Your task to perform on an android device: Search for Italian restaurants on Maps Image 0: 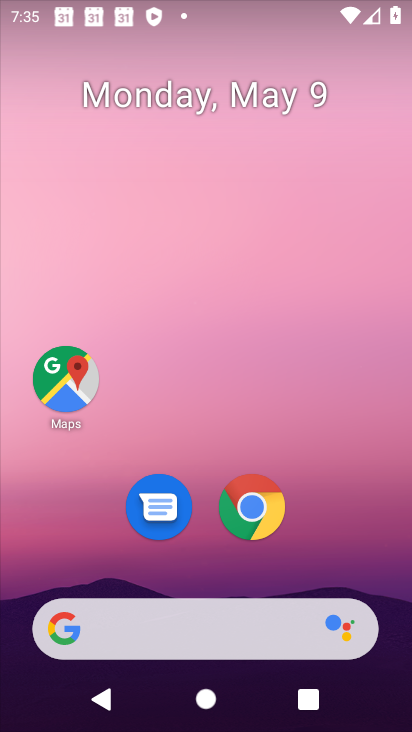
Step 0: drag from (278, 667) to (249, 165)
Your task to perform on an android device: Search for Italian restaurants on Maps Image 1: 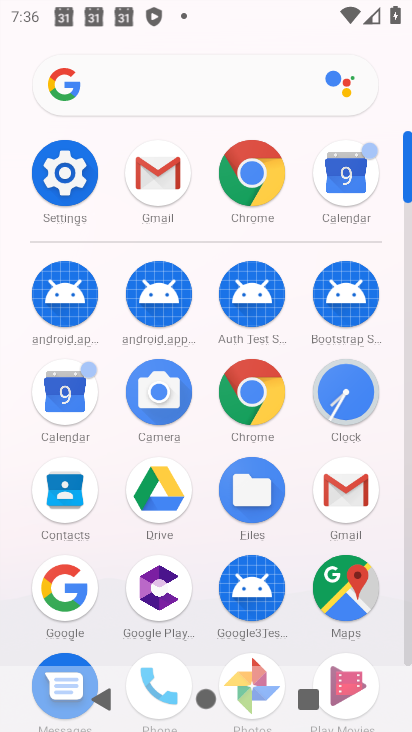
Step 1: click (339, 591)
Your task to perform on an android device: Search for Italian restaurants on Maps Image 2: 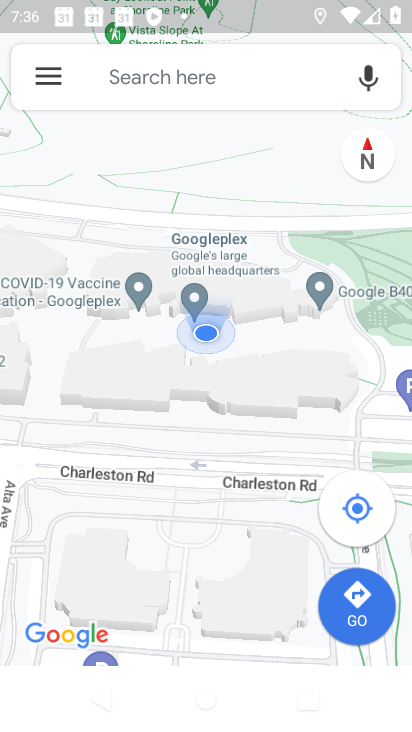
Step 2: click (154, 87)
Your task to perform on an android device: Search for Italian restaurants on Maps Image 3: 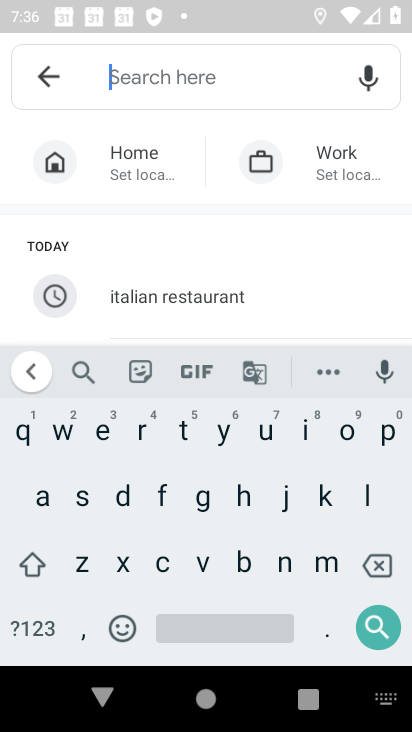
Step 3: click (170, 294)
Your task to perform on an android device: Search for Italian restaurants on Maps Image 4: 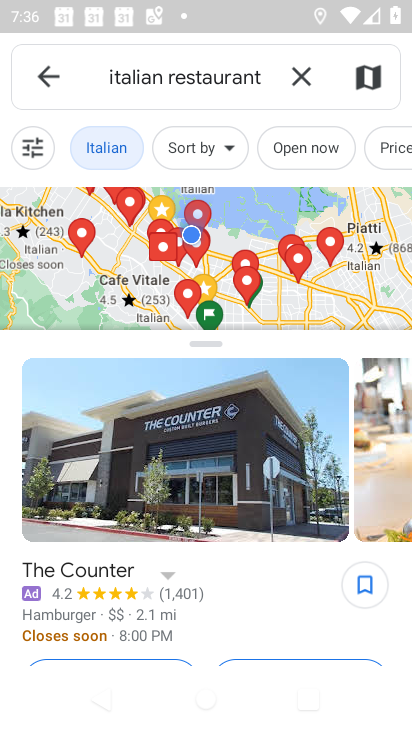
Step 4: click (178, 225)
Your task to perform on an android device: Search for Italian restaurants on Maps Image 5: 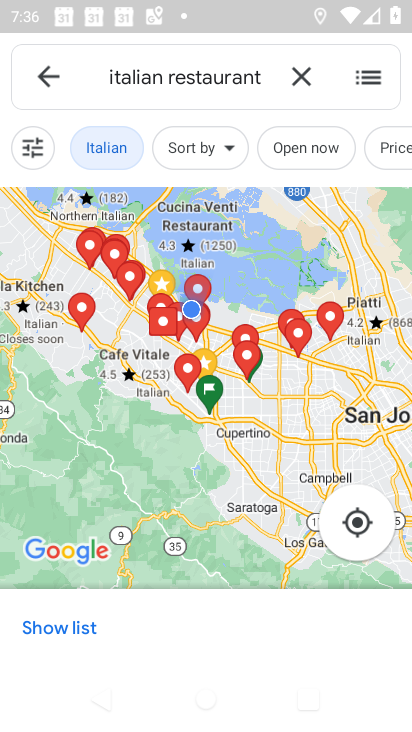
Step 5: click (350, 522)
Your task to perform on an android device: Search for Italian restaurants on Maps Image 6: 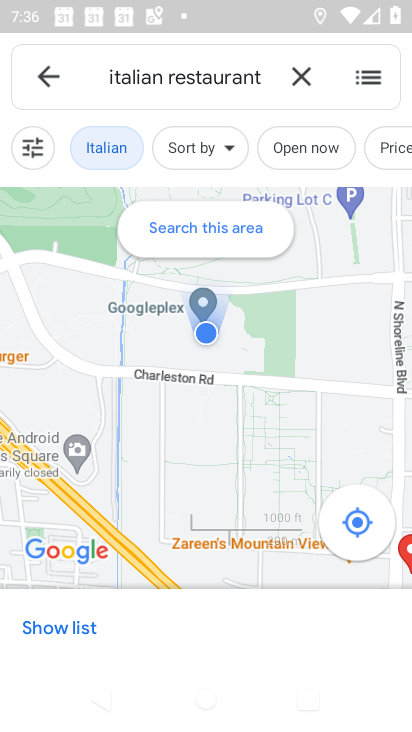
Step 6: task complete